Your task to perform on an android device: Open the stopwatch Image 0: 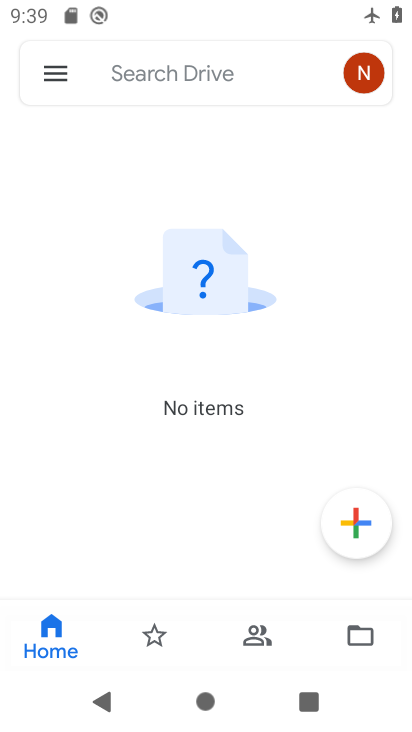
Step 0: press home button
Your task to perform on an android device: Open the stopwatch Image 1: 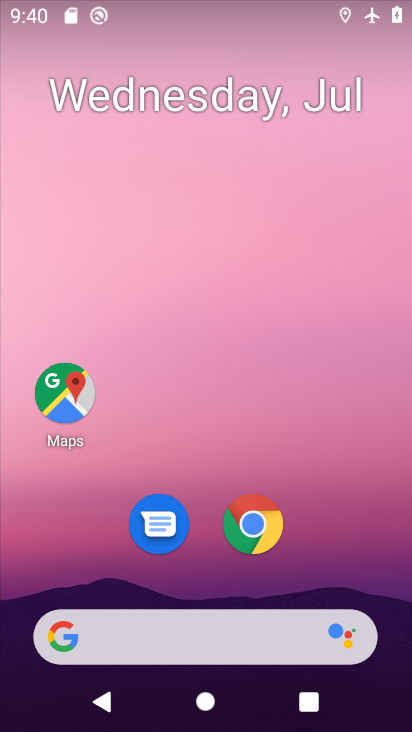
Step 1: drag from (330, 546) to (359, 92)
Your task to perform on an android device: Open the stopwatch Image 2: 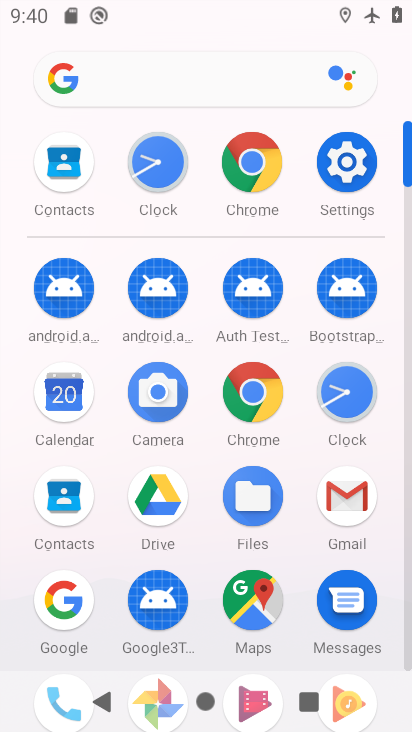
Step 2: click (164, 160)
Your task to perform on an android device: Open the stopwatch Image 3: 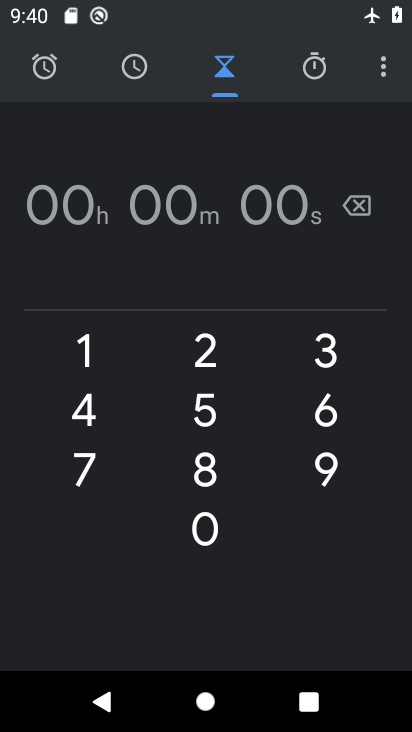
Step 3: click (314, 70)
Your task to perform on an android device: Open the stopwatch Image 4: 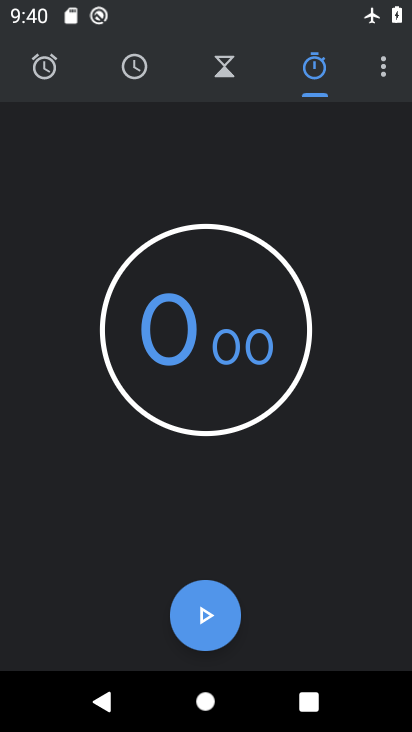
Step 4: task complete